Your task to perform on an android device: turn off location Image 0: 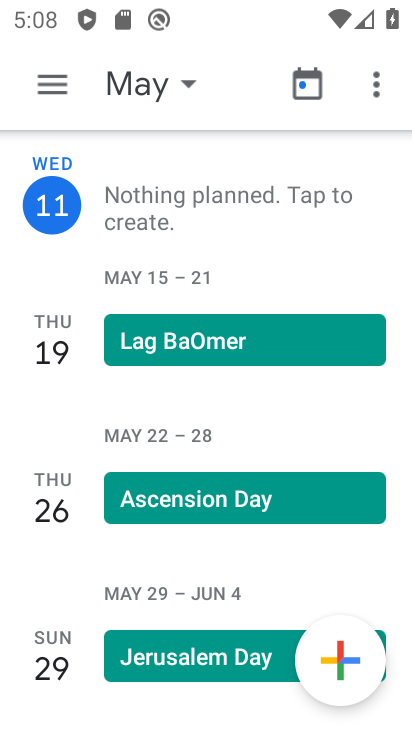
Step 0: press back button
Your task to perform on an android device: turn off location Image 1: 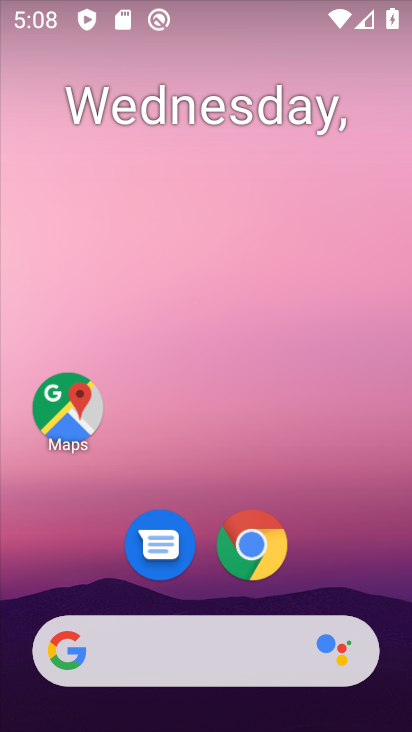
Step 1: drag from (154, 601) to (372, 0)
Your task to perform on an android device: turn off location Image 2: 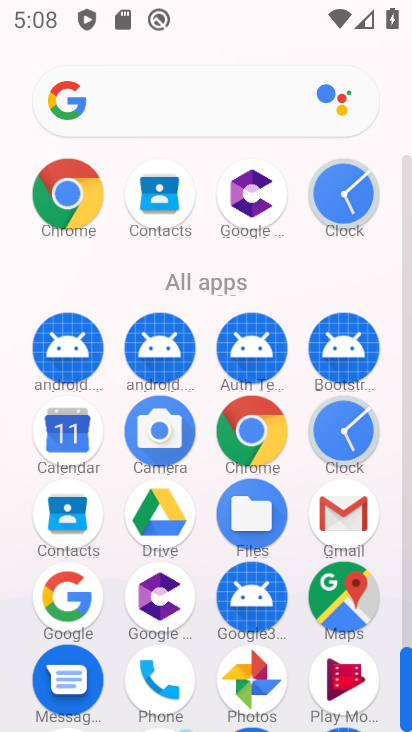
Step 2: drag from (160, 621) to (242, 165)
Your task to perform on an android device: turn off location Image 3: 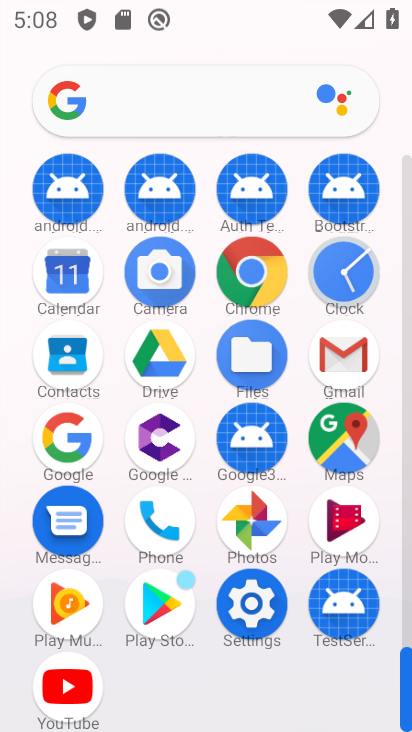
Step 3: click (258, 613)
Your task to perform on an android device: turn off location Image 4: 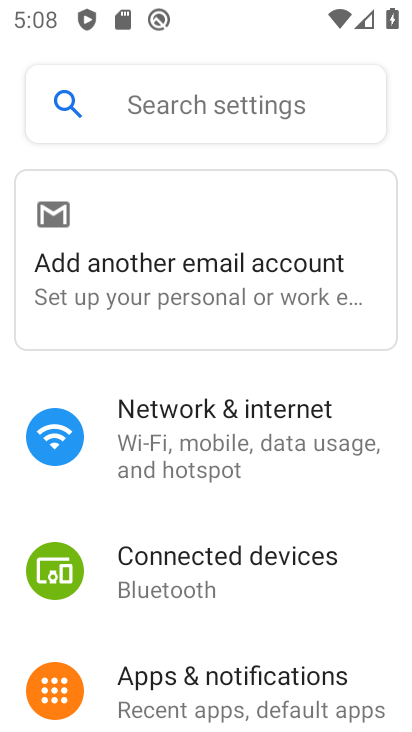
Step 4: drag from (190, 615) to (302, 98)
Your task to perform on an android device: turn off location Image 5: 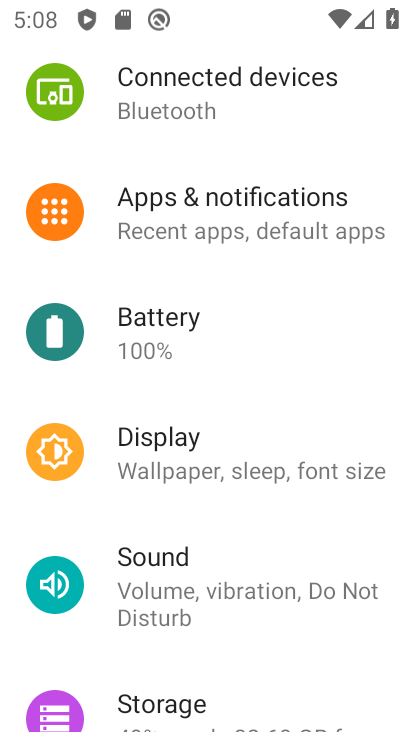
Step 5: drag from (174, 631) to (234, 90)
Your task to perform on an android device: turn off location Image 6: 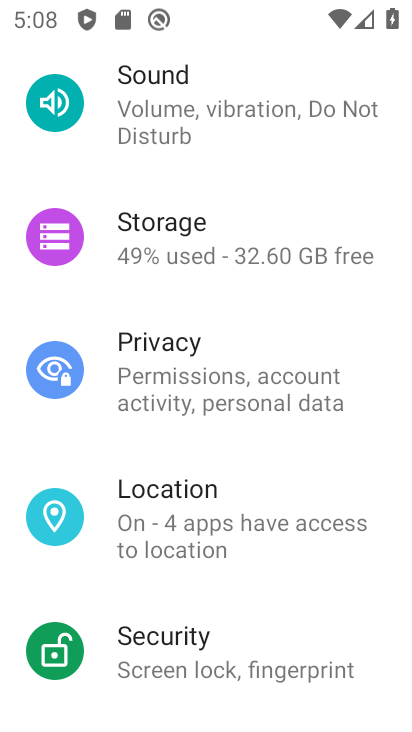
Step 6: click (191, 527)
Your task to perform on an android device: turn off location Image 7: 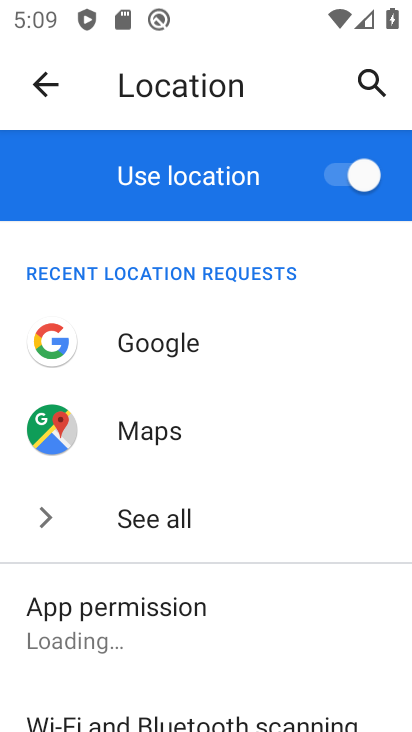
Step 7: click (361, 173)
Your task to perform on an android device: turn off location Image 8: 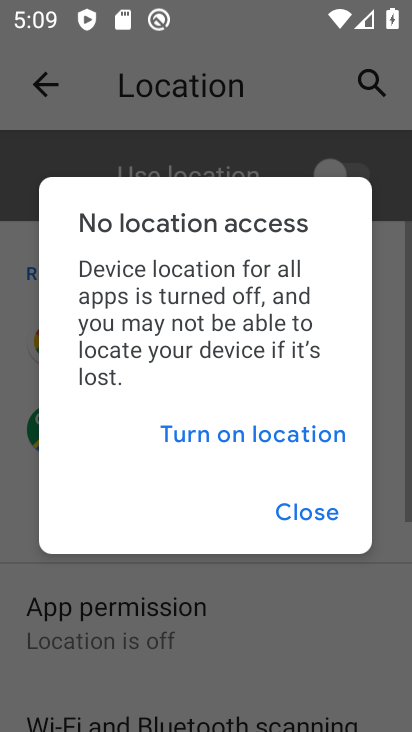
Step 8: task complete